Your task to perform on an android device: Turn off the flashlight Image 0: 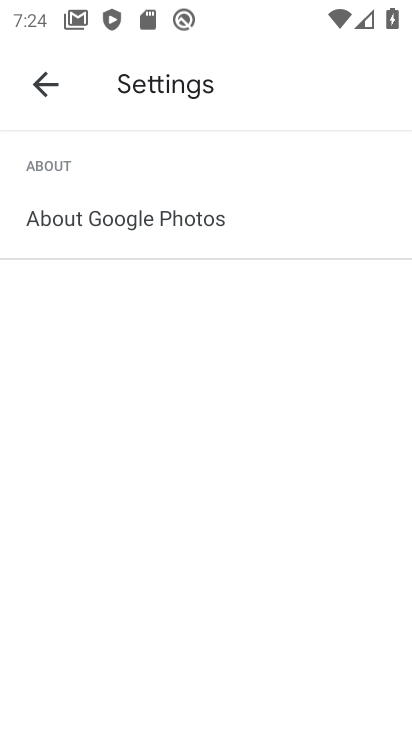
Step 0: press home button
Your task to perform on an android device: Turn off the flashlight Image 1: 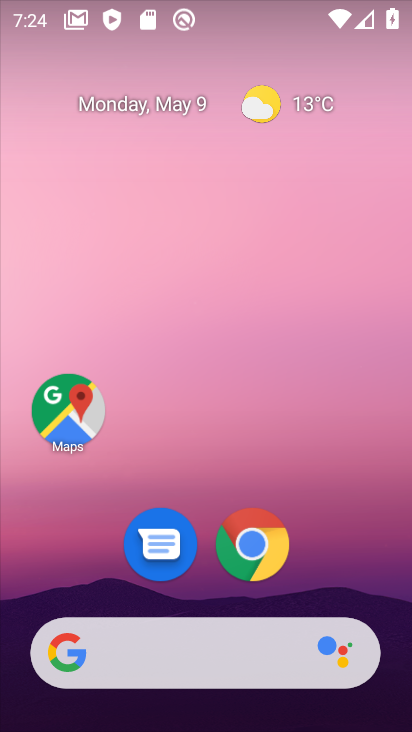
Step 1: drag from (351, 562) to (277, 94)
Your task to perform on an android device: Turn off the flashlight Image 2: 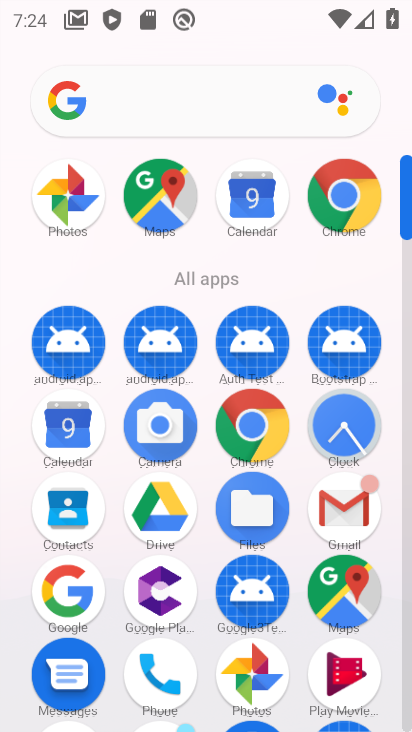
Step 2: drag from (393, 574) to (332, 92)
Your task to perform on an android device: Turn off the flashlight Image 3: 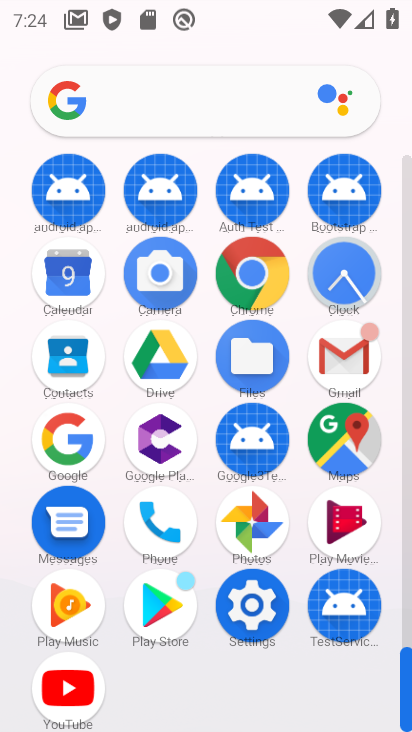
Step 3: click (253, 615)
Your task to perform on an android device: Turn off the flashlight Image 4: 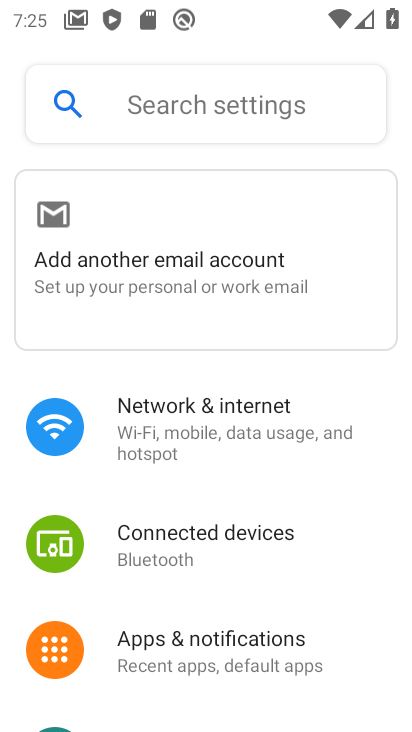
Step 4: task complete